Your task to perform on an android device: change alarm snooze length Image 0: 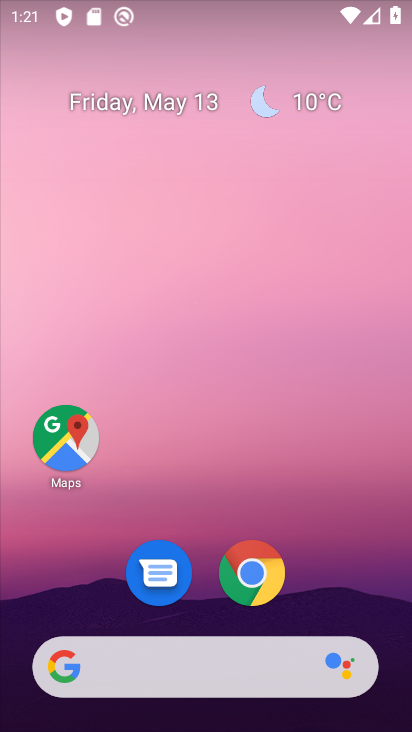
Step 0: drag from (318, 538) to (240, 3)
Your task to perform on an android device: change alarm snooze length Image 1: 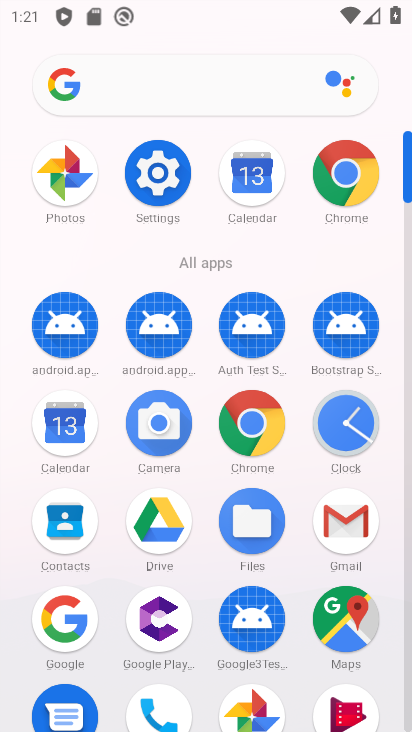
Step 1: drag from (7, 573) to (6, 274)
Your task to perform on an android device: change alarm snooze length Image 2: 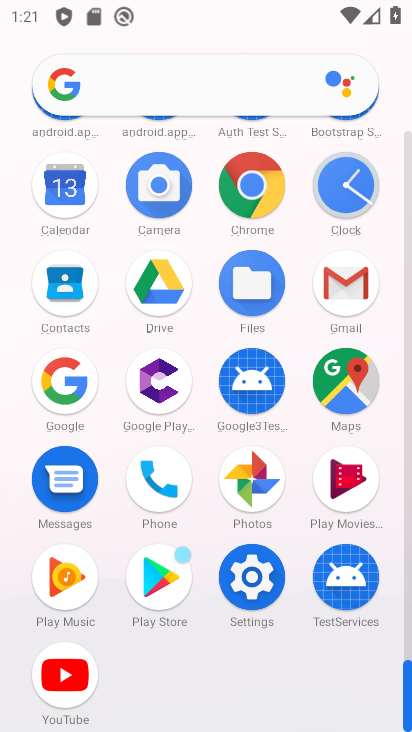
Step 2: drag from (17, 533) to (10, 230)
Your task to perform on an android device: change alarm snooze length Image 3: 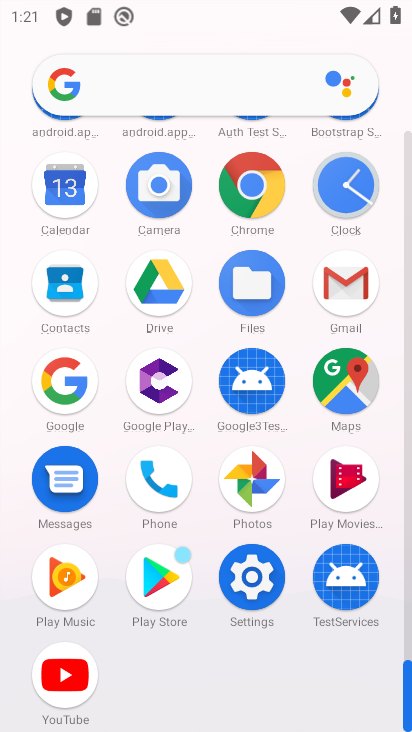
Step 3: drag from (18, 263) to (18, 434)
Your task to perform on an android device: change alarm snooze length Image 4: 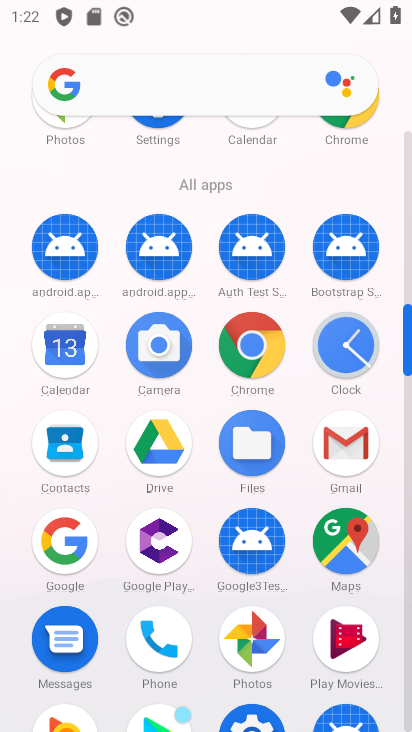
Step 4: click (347, 352)
Your task to perform on an android device: change alarm snooze length Image 5: 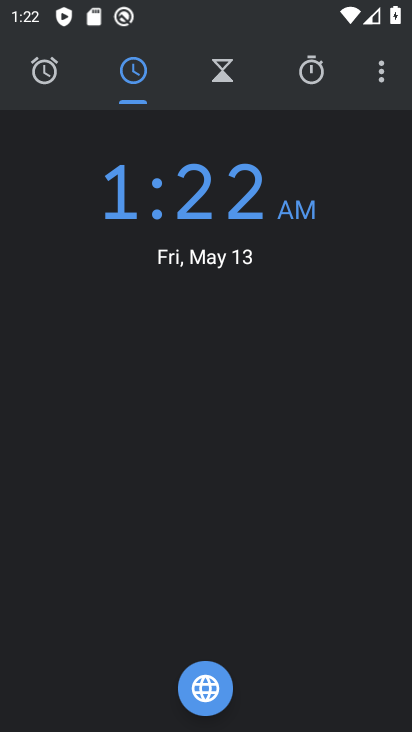
Step 5: drag from (388, 68) to (306, 140)
Your task to perform on an android device: change alarm snooze length Image 6: 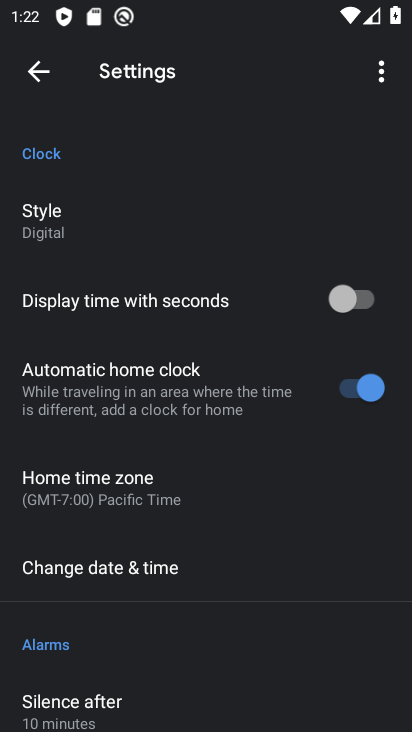
Step 6: drag from (229, 463) to (222, 144)
Your task to perform on an android device: change alarm snooze length Image 7: 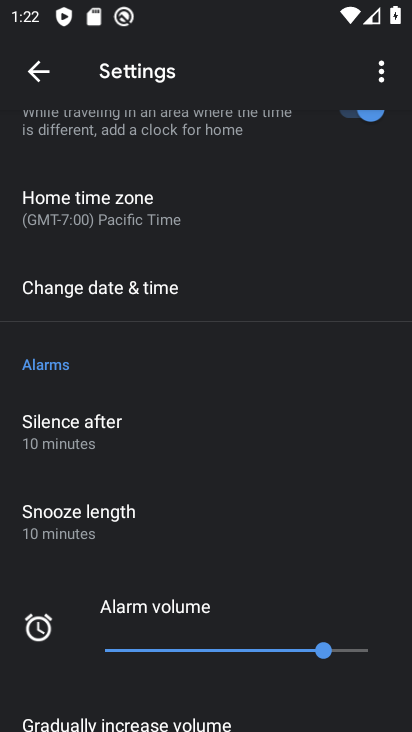
Step 7: drag from (189, 231) to (165, 596)
Your task to perform on an android device: change alarm snooze length Image 8: 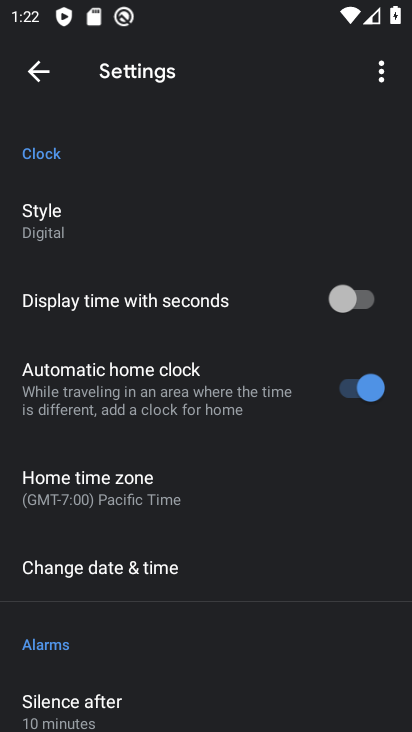
Step 8: drag from (203, 534) to (236, 204)
Your task to perform on an android device: change alarm snooze length Image 9: 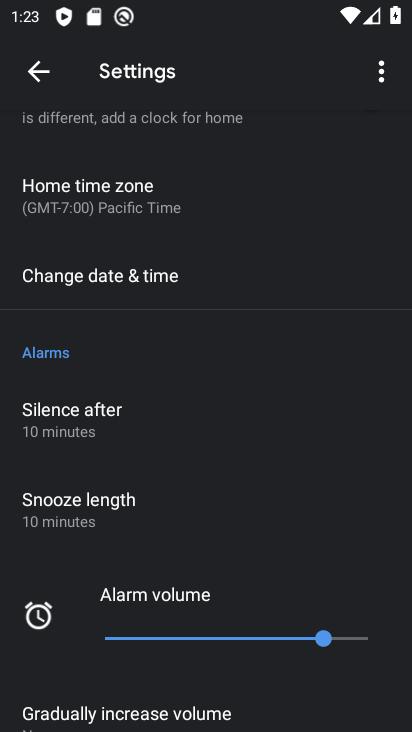
Step 9: click (130, 499)
Your task to perform on an android device: change alarm snooze length Image 10: 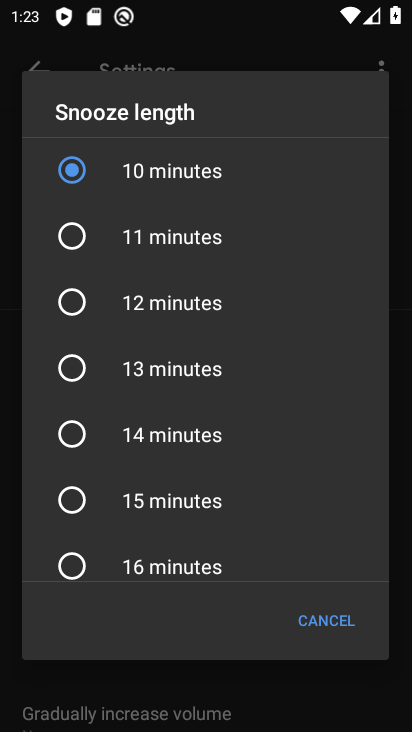
Step 10: click (156, 370)
Your task to perform on an android device: change alarm snooze length Image 11: 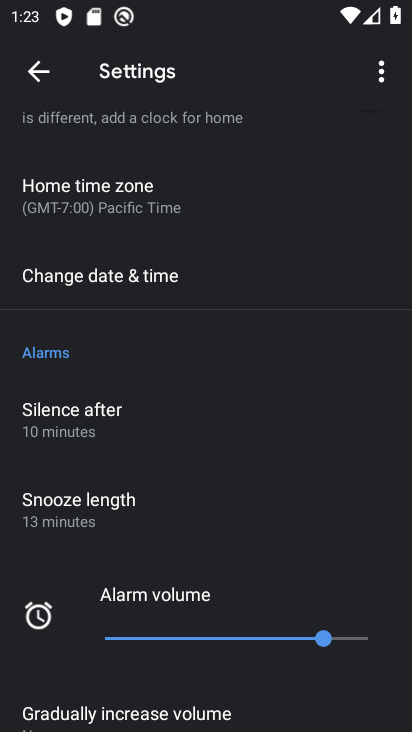
Step 11: task complete